Your task to perform on an android device: Do I have any events tomorrow? Image 0: 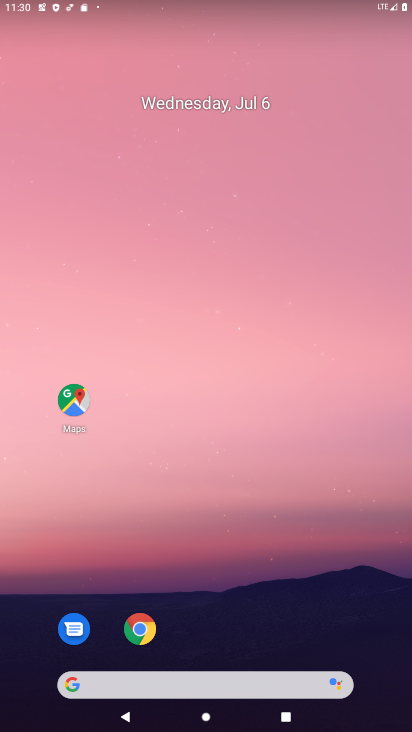
Step 0: drag from (235, 604) to (231, 155)
Your task to perform on an android device: Do I have any events tomorrow? Image 1: 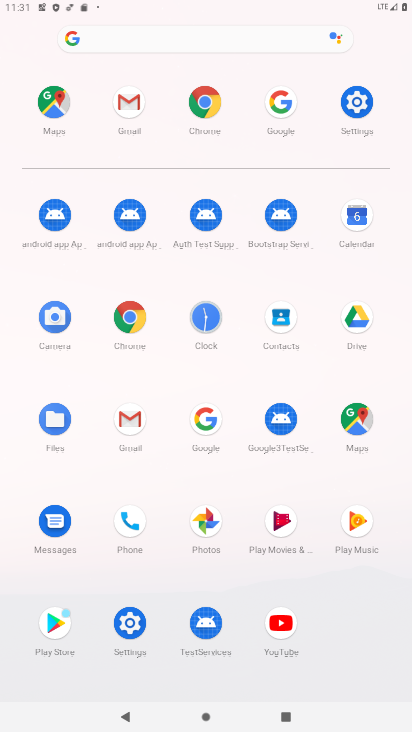
Step 1: click (359, 229)
Your task to perform on an android device: Do I have any events tomorrow? Image 2: 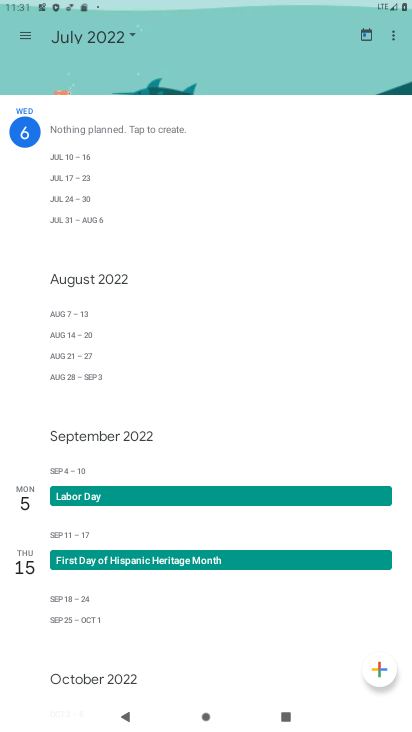
Step 2: click (131, 36)
Your task to perform on an android device: Do I have any events tomorrow? Image 3: 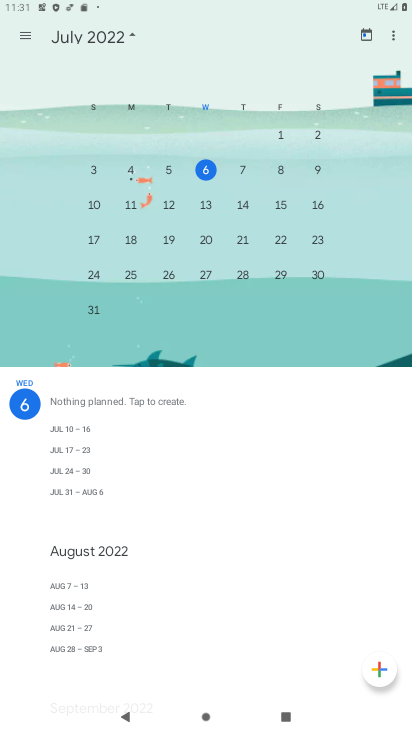
Step 3: click (243, 162)
Your task to perform on an android device: Do I have any events tomorrow? Image 4: 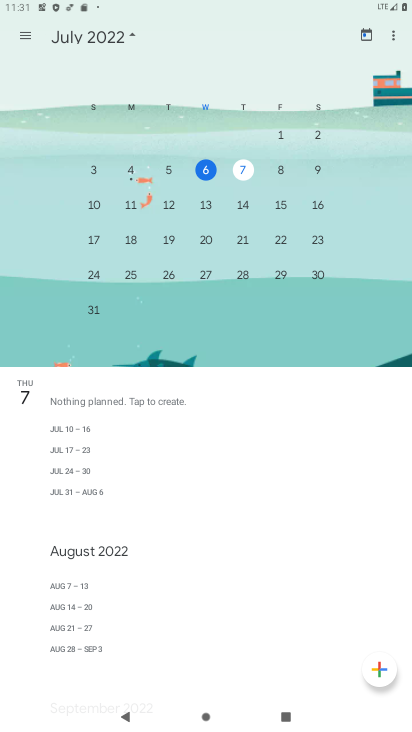
Step 4: task complete